Your task to perform on an android device: Go to calendar. Show me events next week Image 0: 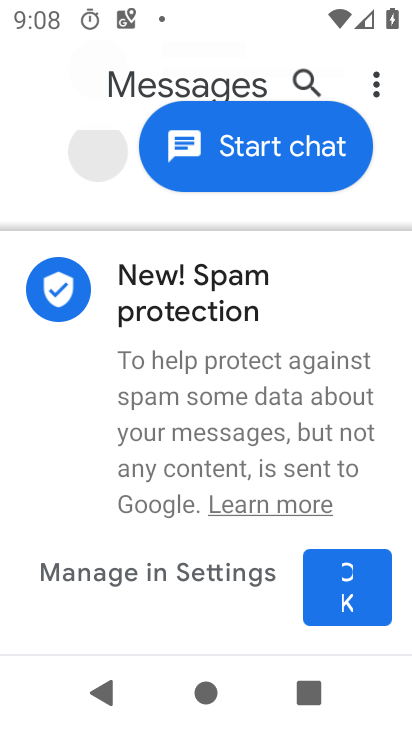
Step 0: press home button
Your task to perform on an android device: Go to calendar. Show me events next week Image 1: 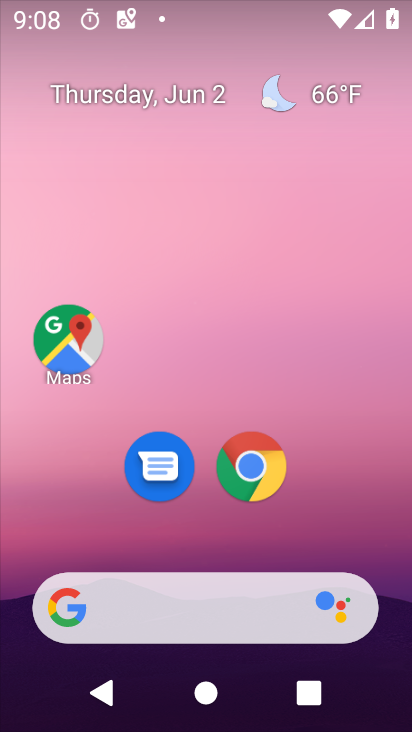
Step 1: drag from (105, 419) to (302, 172)
Your task to perform on an android device: Go to calendar. Show me events next week Image 2: 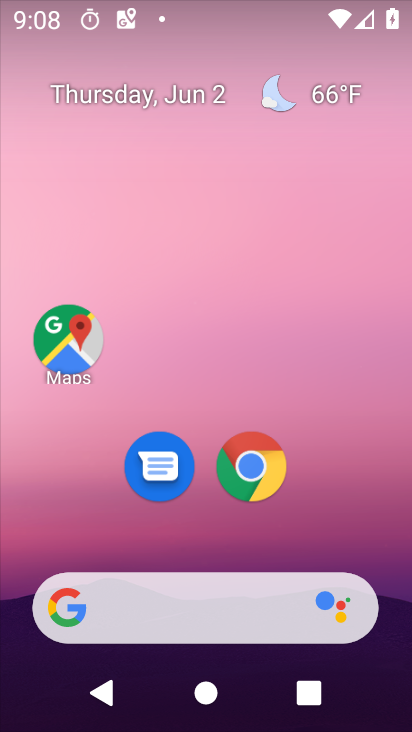
Step 2: drag from (38, 591) to (301, 130)
Your task to perform on an android device: Go to calendar. Show me events next week Image 3: 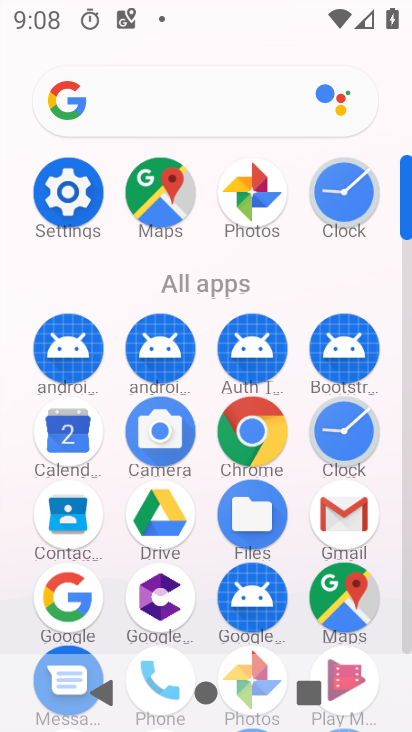
Step 3: click (86, 427)
Your task to perform on an android device: Go to calendar. Show me events next week Image 4: 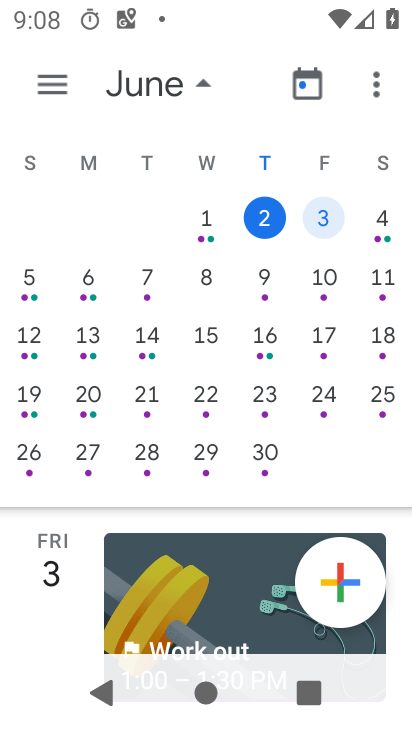
Step 4: click (91, 295)
Your task to perform on an android device: Go to calendar. Show me events next week Image 5: 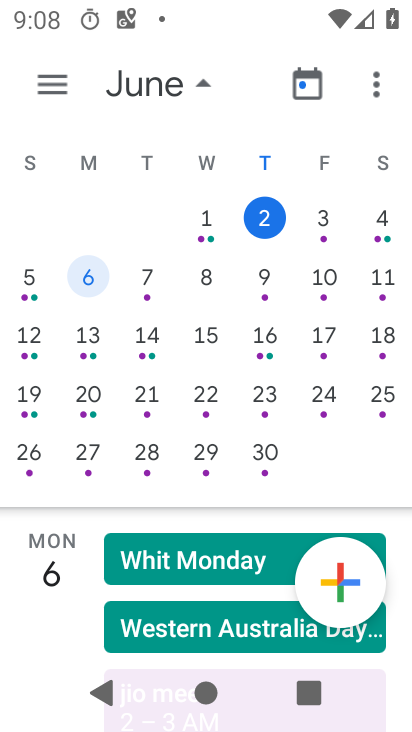
Step 5: click (161, 269)
Your task to perform on an android device: Go to calendar. Show me events next week Image 6: 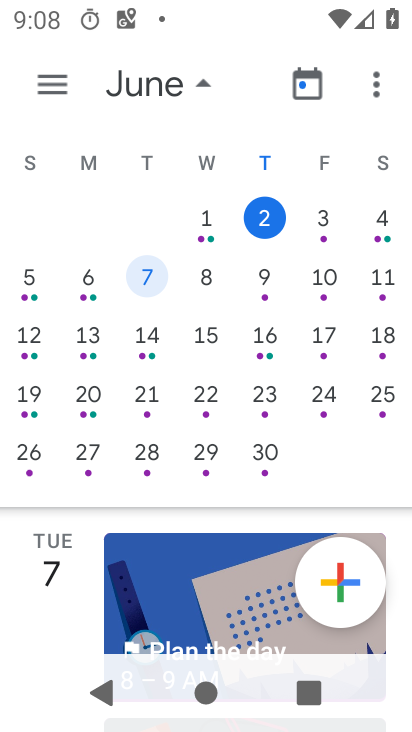
Step 6: click (203, 277)
Your task to perform on an android device: Go to calendar. Show me events next week Image 7: 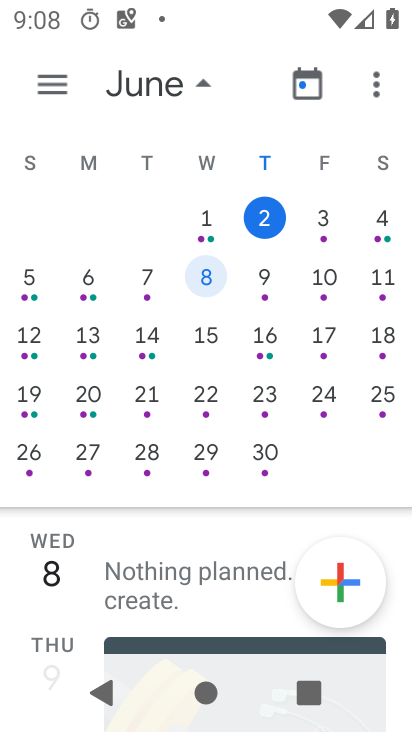
Step 7: click (257, 272)
Your task to perform on an android device: Go to calendar. Show me events next week Image 8: 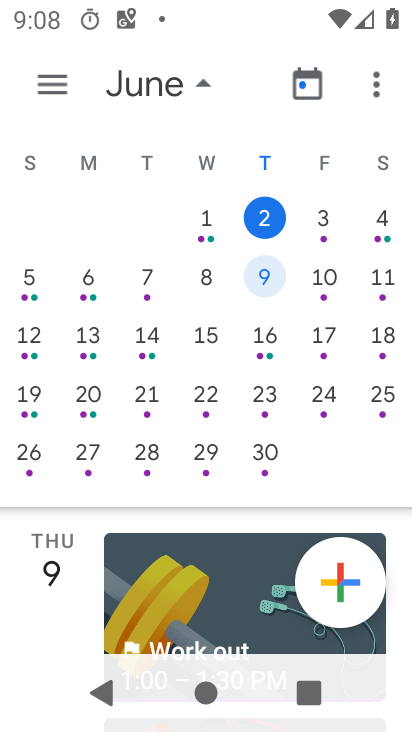
Step 8: click (320, 280)
Your task to perform on an android device: Go to calendar. Show me events next week Image 9: 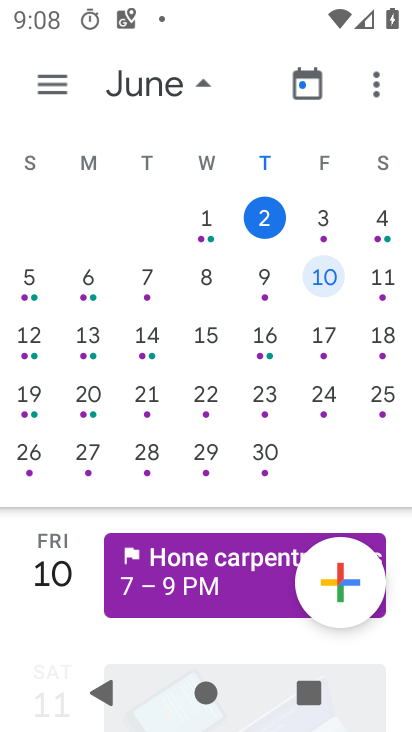
Step 9: task complete